Your task to perform on an android device: turn off smart reply in the gmail app Image 0: 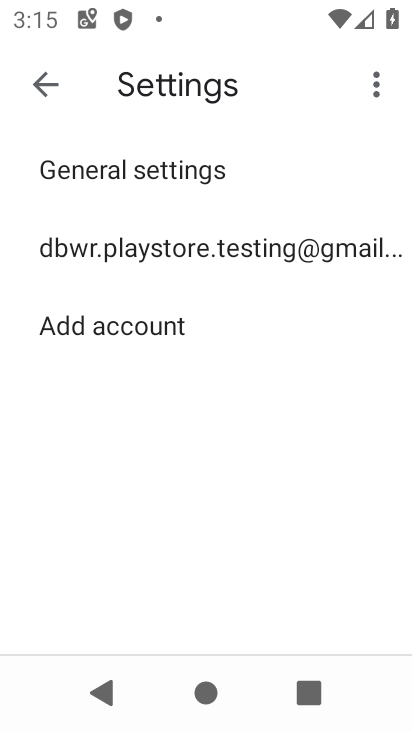
Step 0: press home button
Your task to perform on an android device: turn off smart reply in the gmail app Image 1: 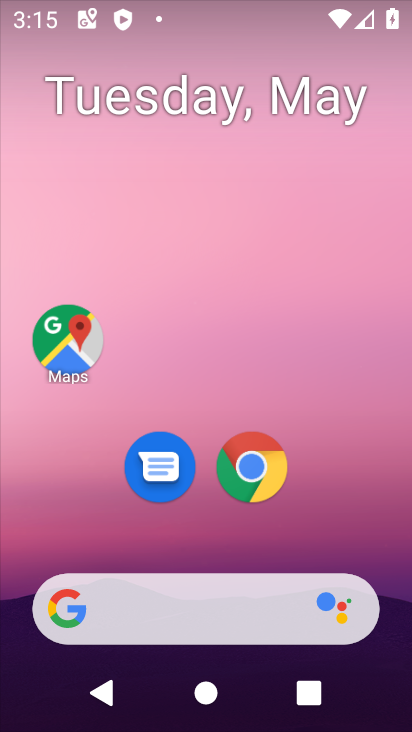
Step 1: drag from (320, 213) to (308, 7)
Your task to perform on an android device: turn off smart reply in the gmail app Image 2: 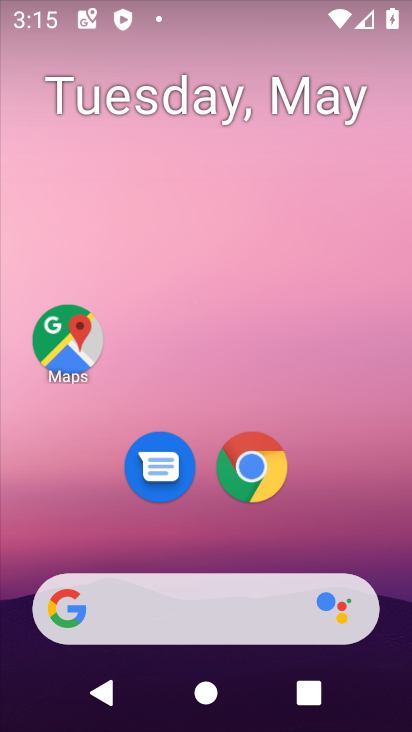
Step 2: drag from (360, 469) to (332, 7)
Your task to perform on an android device: turn off smart reply in the gmail app Image 3: 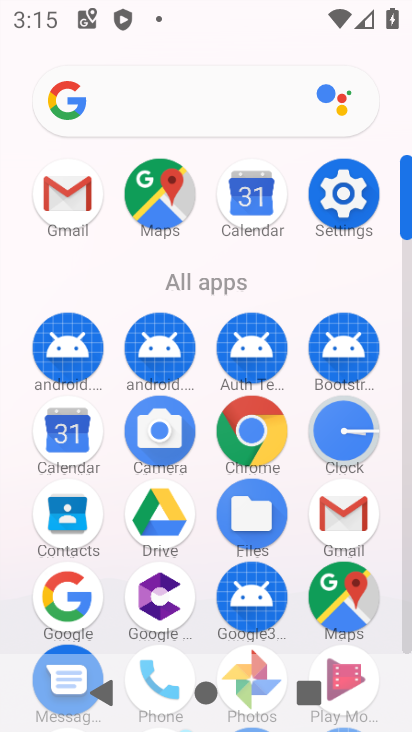
Step 3: click (80, 197)
Your task to perform on an android device: turn off smart reply in the gmail app Image 4: 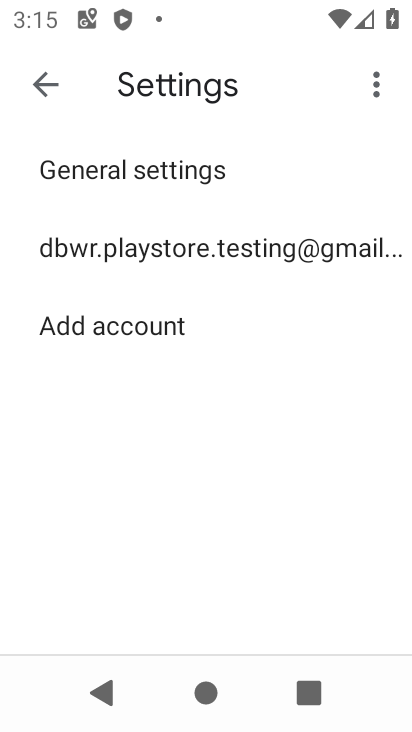
Step 4: click (39, 83)
Your task to perform on an android device: turn off smart reply in the gmail app Image 5: 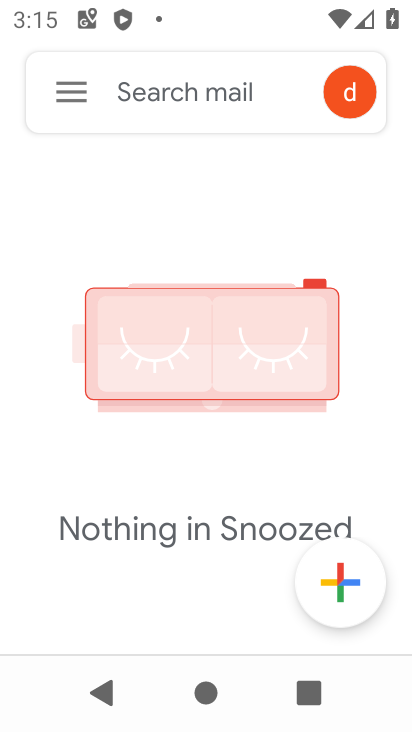
Step 5: click (58, 86)
Your task to perform on an android device: turn off smart reply in the gmail app Image 6: 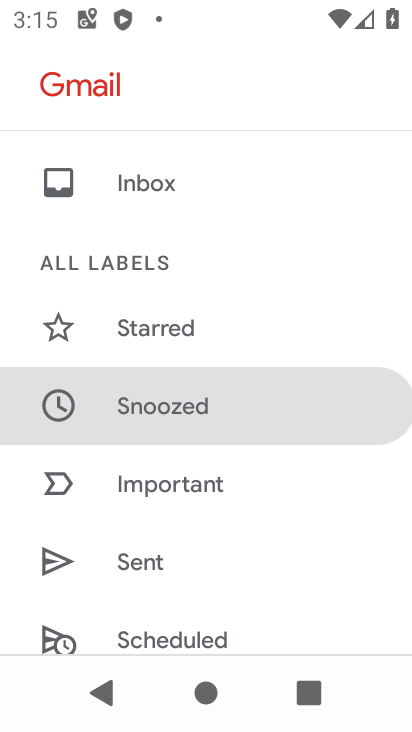
Step 6: drag from (297, 611) to (288, 10)
Your task to perform on an android device: turn off smart reply in the gmail app Image 7: 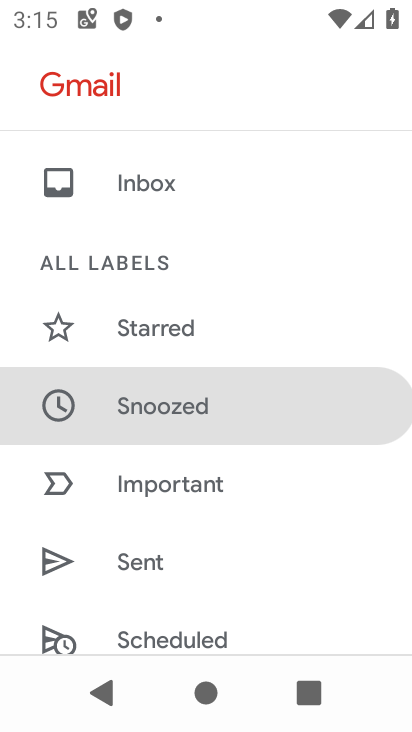
Step 7: drag from (300, 614) to (332, 9)
Your task to perform on an android device: turn off smart reply in the gmail app Image 8: 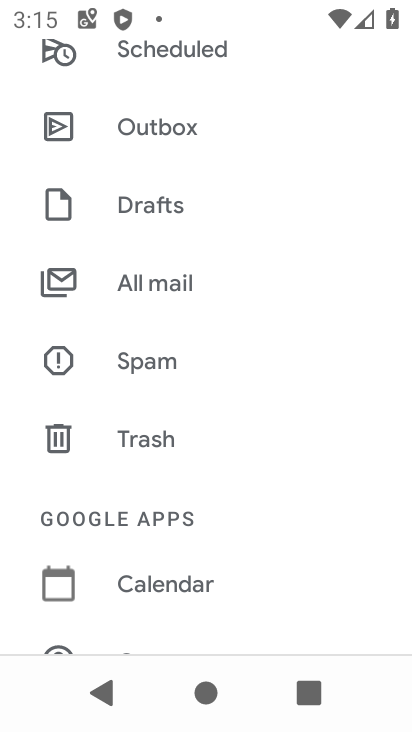
Step 8: drag from (316, 579) to (319, 63)
Your task to perform on an android device: turn off smart reply in the gmail app Image 9: 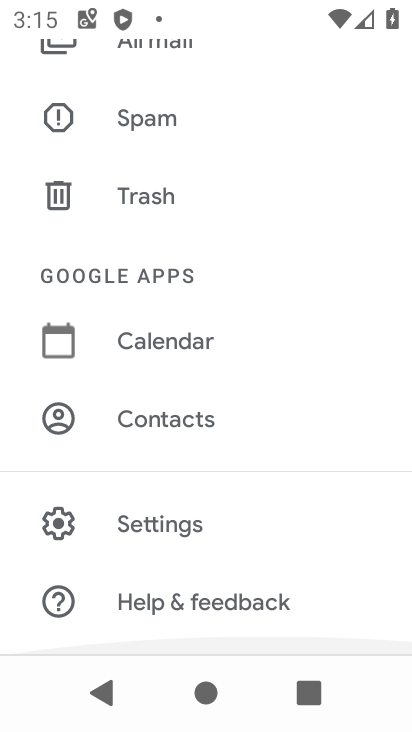
Step 9: click (185, 530)
Your task to perform on an android device: turn off smart reply in the gmail app Image 10: 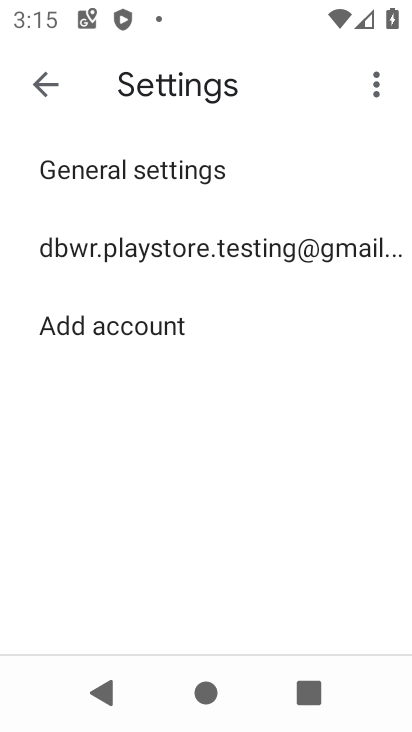
Step 10: click (145, 257)
Your task to perform on an android device: turn off smart reply in the gmail app Image 11: 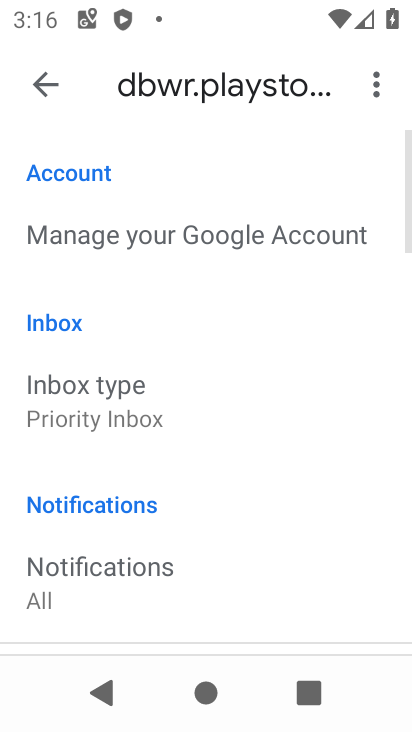
Step 11: drag from (286, 617) to (272, 6)
Your task to perform on an android device: turn off smart reply in the gmail app Image 12: 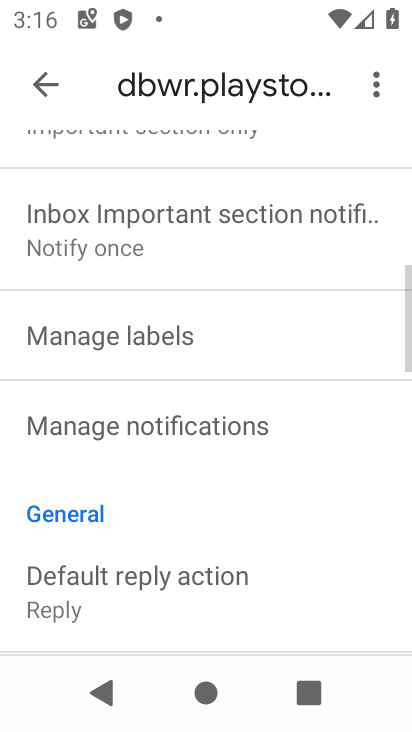
Step 12: drag from (276, 592) to (283, 123)
Your task to perform on an android device: turn off smart reply in the gmail app Image 13: 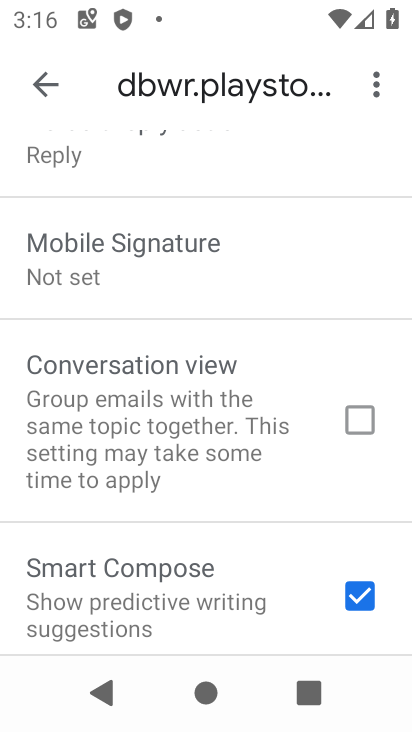
Step 13: drag from (235, 554) to (242, 210)
Your task to perform on an android device: turn off smart reply in the gmail app Image 14: 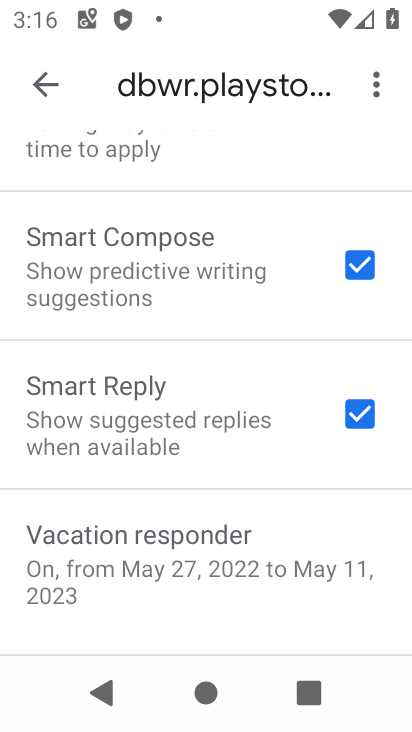
Step 14: click (370, 426)
Your task to perform on an android device: turn off smart reply in the gmail app Image 15: 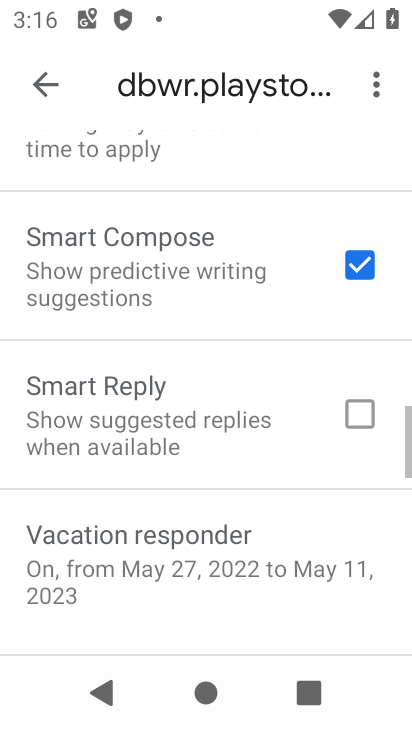
Step 15: task complete